Your task to perform on an android device: turn on data saver in the chrome app Image 0: 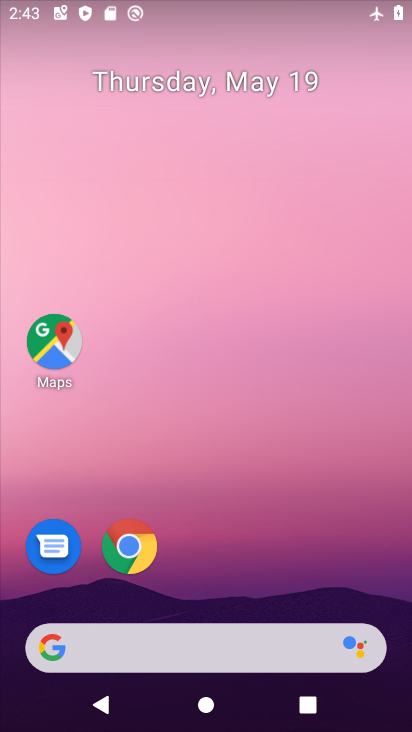
Step 0: click (130, 547)
Your task to perform on an android device: turn on data saver in the chrome app Image 1: 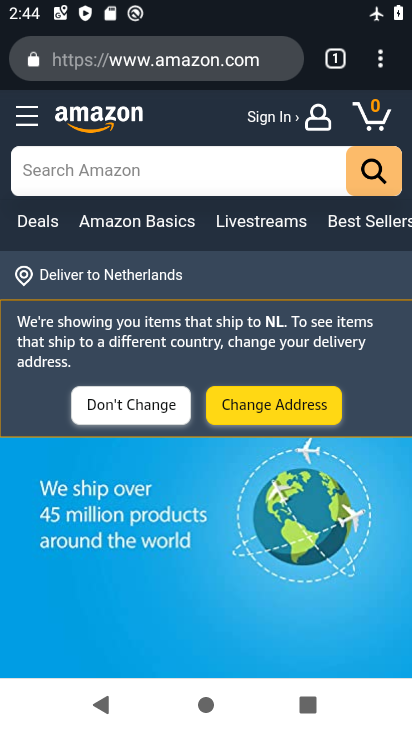
Step 1: click (379, 61)
Your task to perform on an android device: turn on data saver in the chrome app Image 2: 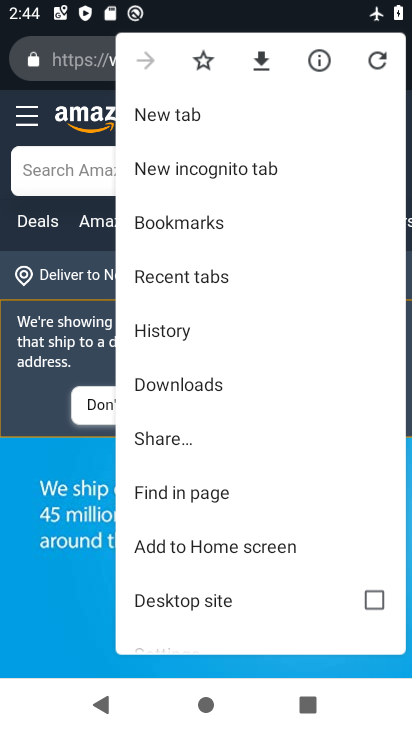
Step 2: drag from (209, 512) to (236, 432)
Your task to perform on an android device: turn on data saver in the chrome app Image 3: 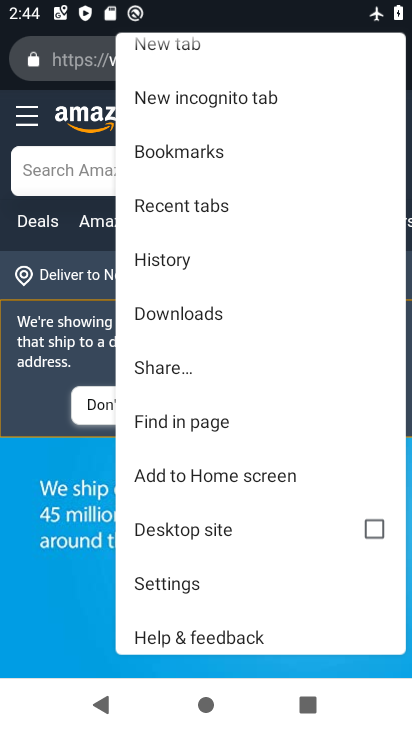
Step 3: drag from (184, 503) to (223, 430)
Your task to perform on an android device: turn on data saver in the chrome app Image 4: 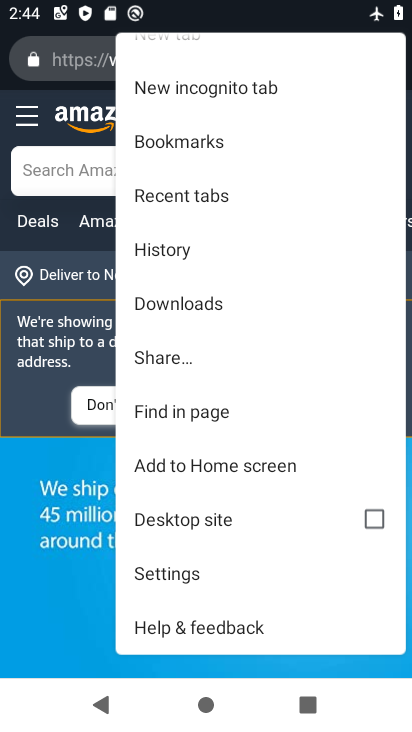
Step 4: click (161, 568)
Your task to perform on an android device: turn on data saver in the chrome app Image 5: 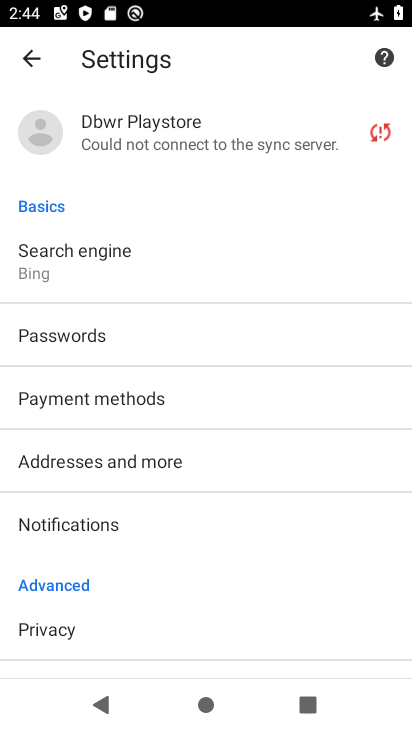
Step 5: drag from (126, 549) to (177, 454)
Your task to perform on an android device: turn on data saver in the chrome app Image 6: 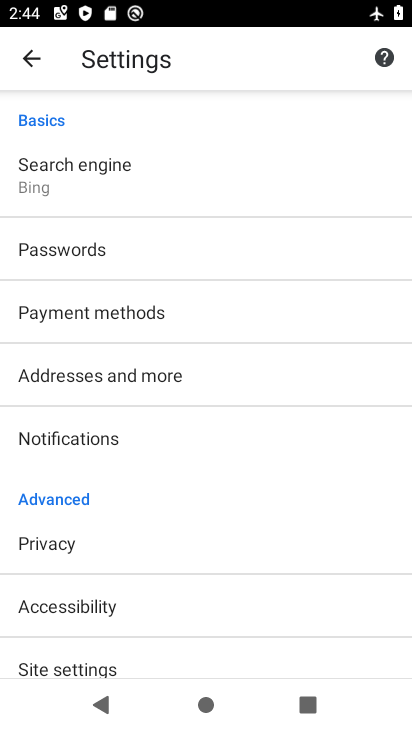
Step 6: drag from (104, 553) to (165, 469)
Your task to perform on an android device: turn on data saver in the chrome app Image 7: 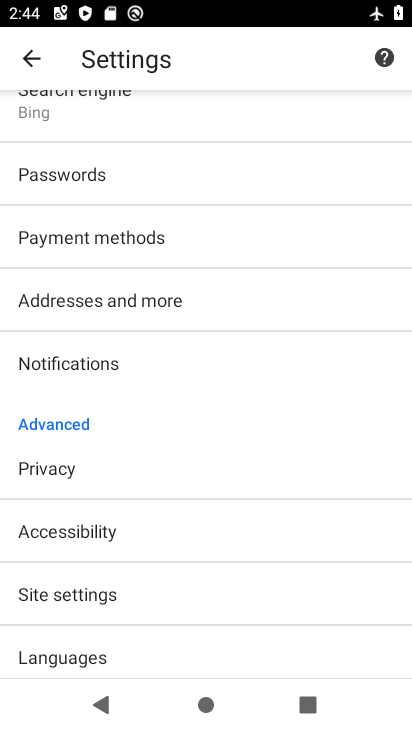
Step 7: drag from (119, 576) to (172, 499)
Your task to perform on an android device: turn on data saver in the chrome app Image 8: 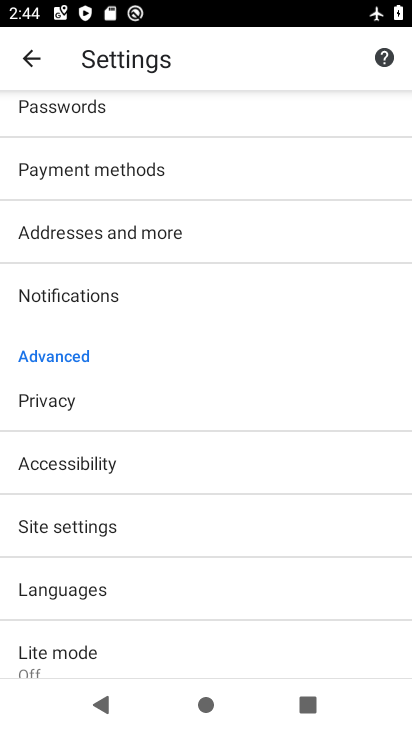
Step 8: drag from (120, 601) to (178, 521)
Your task to perform on an android device: turn on data saver in the chrome app Image 9: 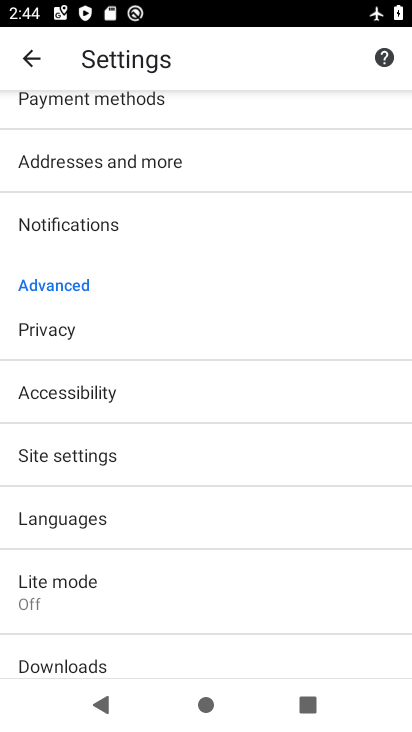
Step 9: click (84, 583)
Your task to perform on an android device: turn on data saver in the chrome app Image 10: 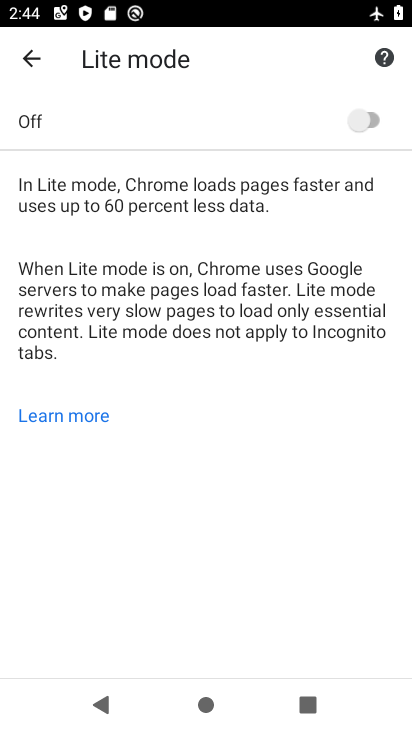
Step 10: click (355, 128)
Your task to perform on an android device: turn on data saver in the chrome app Image 11: 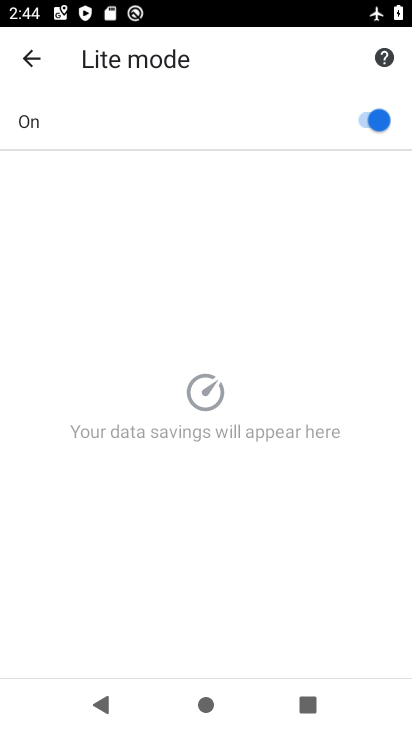
Step 11: task complete